Your task to perform on an android device: toggle airplane mode Image 0: 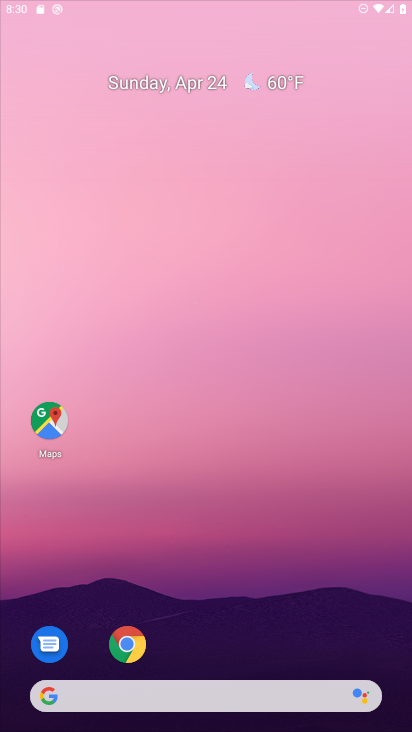
Step 0: drag from (199, 196) to (198, 624)
Your task to perform on an android device: toggle airplane mode Image 1: 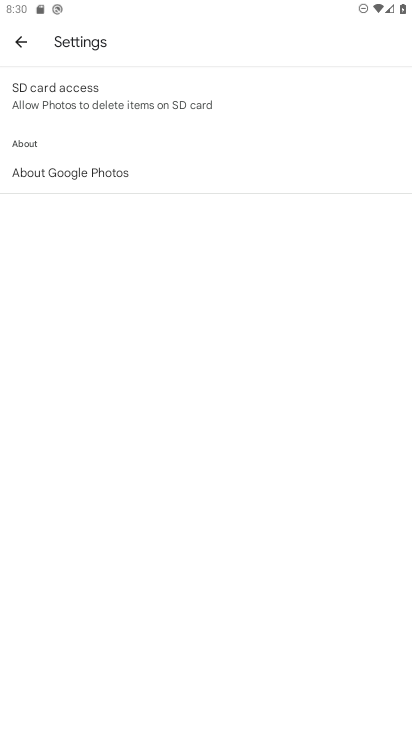
Step 1: drag from (205, 3) to (200, 544)
Your task to perform on an android device: toggle airplane mode Image 2: 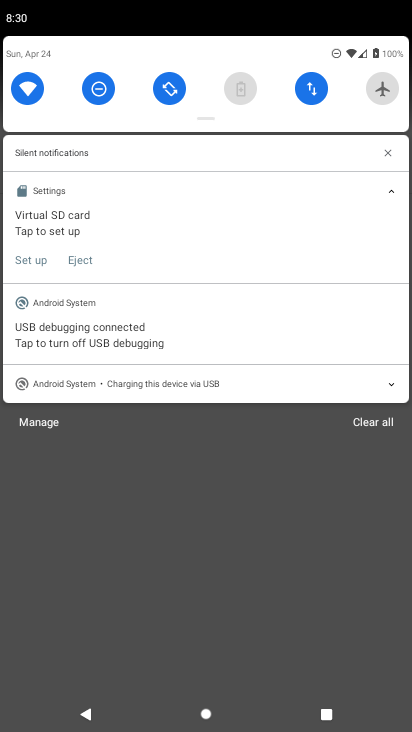
Step 2: click (386, 87)
Your task to perform on an android device: toggle airplane mode Image 3: 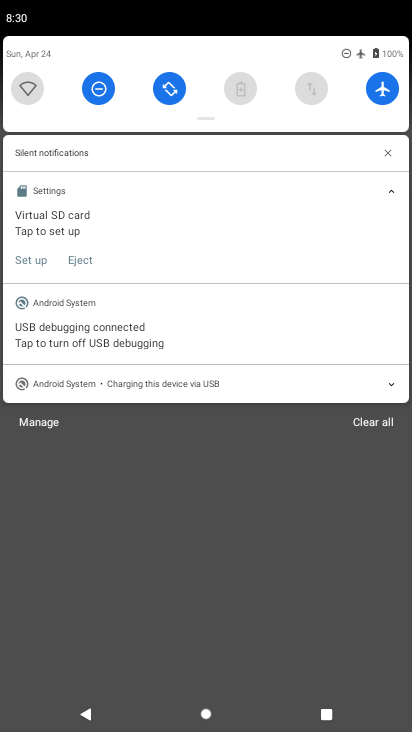
Step 3: task complete